Your task to perform on an android device: Add "logitech g pro" to the cart on amazon, then select checkout. Image 0: 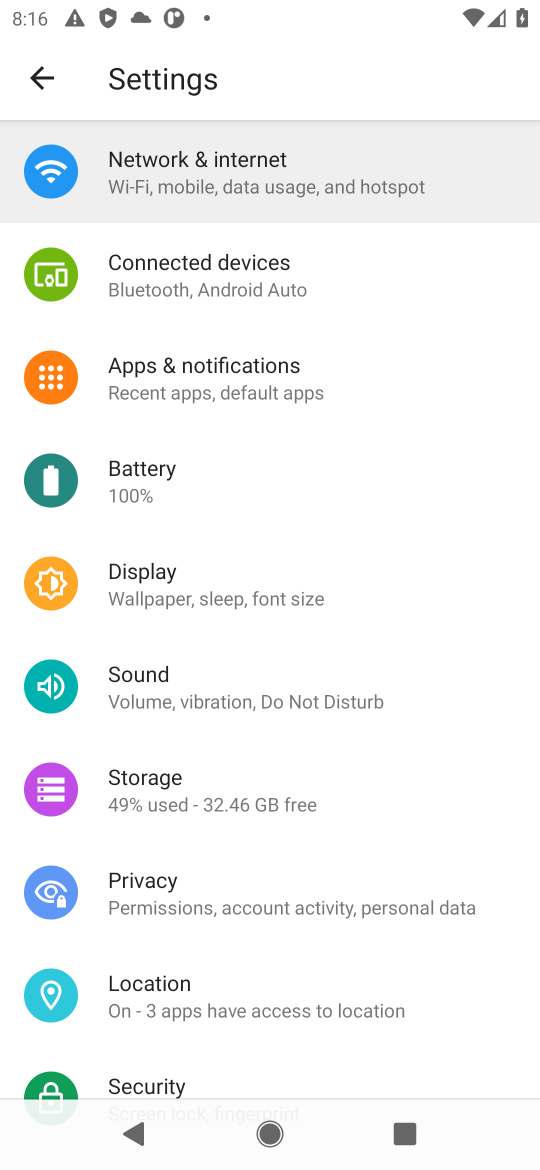
Step 0: press home button
Your task to perform on an android device: Add "logitech g pro" to the cart on amazon, then select checkout. Image 1: 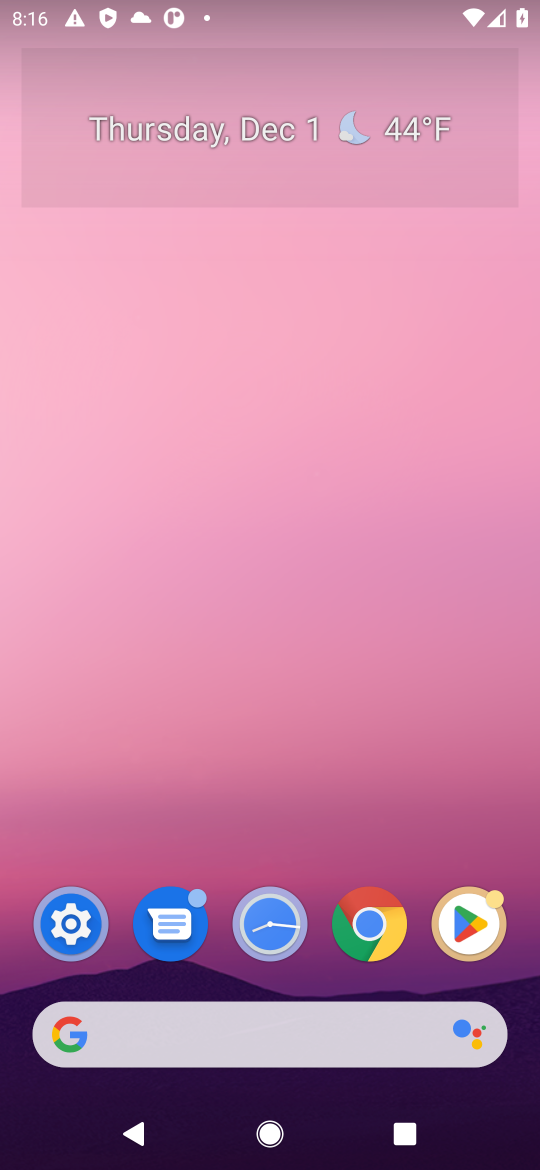
Step 1: click (335, 1046)
Your task to perform on an android device: Add "logitech g pro" to the cart on amazon, then select checkout. Image 2: 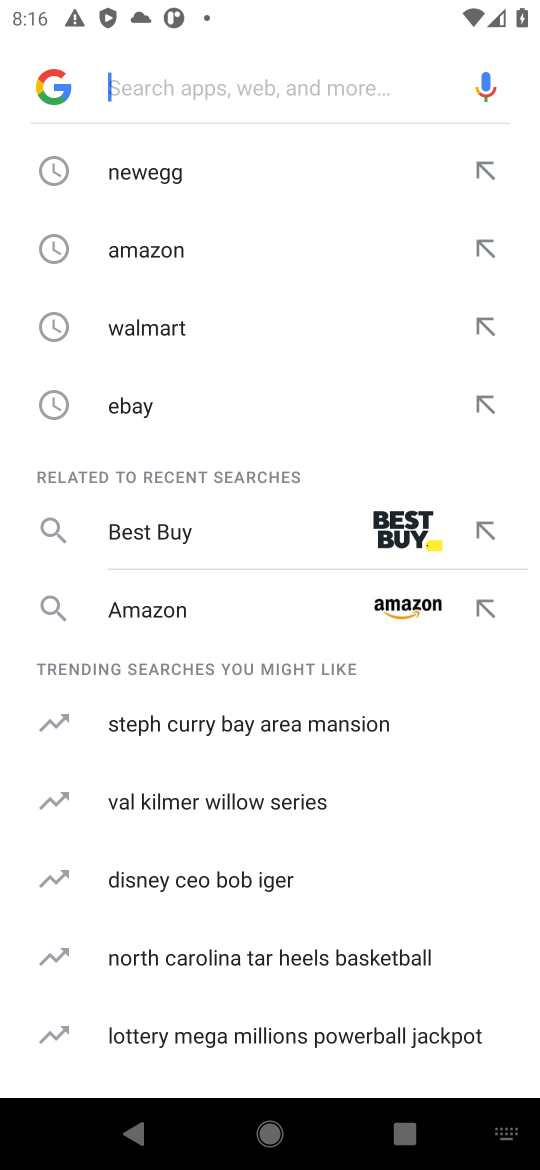
Step 2: type "amazon"
Your task to perform on an android device: Add "logitech g pro" to the cart on amazon, then select checkout. Image 3: 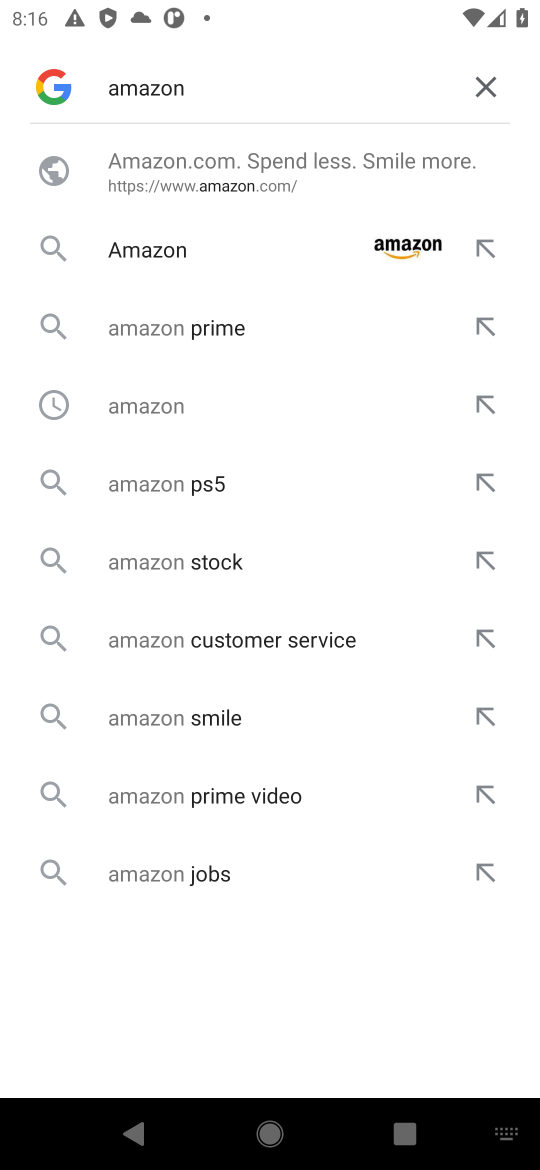
Step 3: click (144, 238)
Your task to perform on an android device: Add "logitech g pro" to the cart on amazon, then select checkout. Image 4: 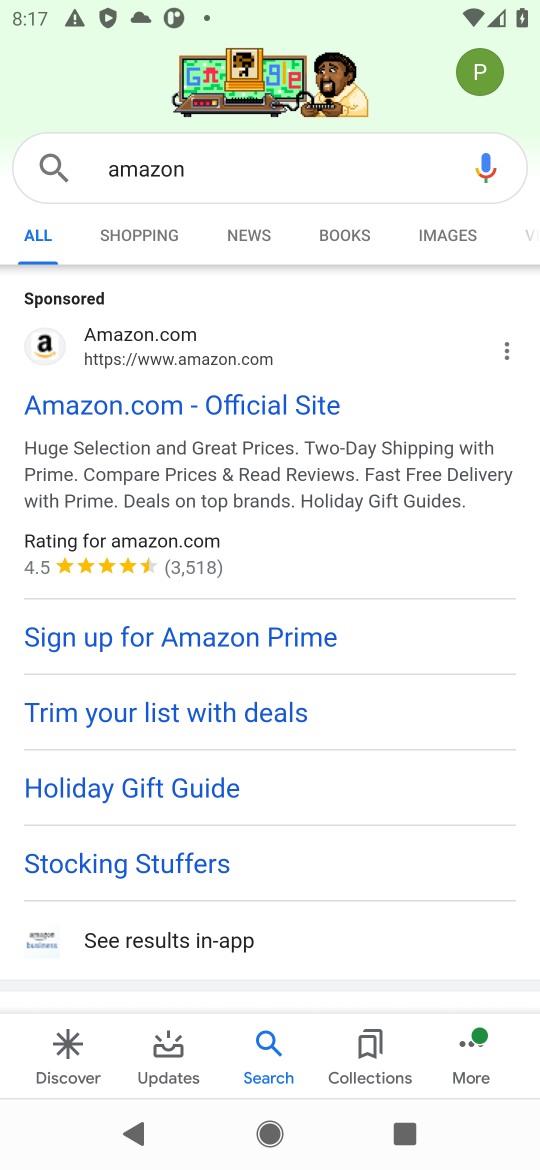
Step 4: click (215, 384)
Your task to perform on an android device: Add "logitech g pro" to the cart on amazon, then select checkout. Image 5: 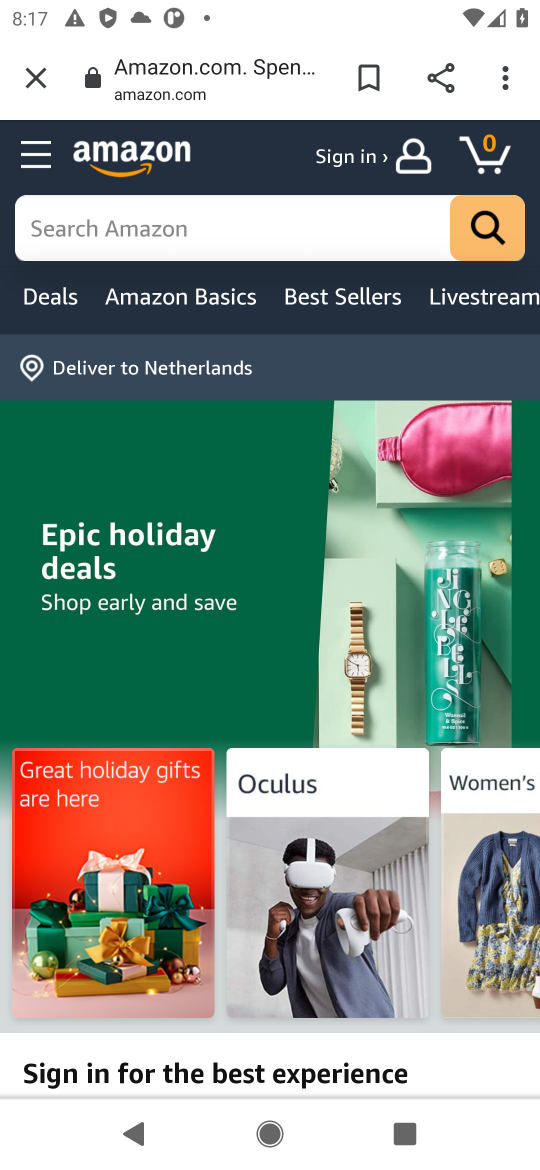
Step 5: task complete